Your task to perform on an android device: turn off location Image 0: 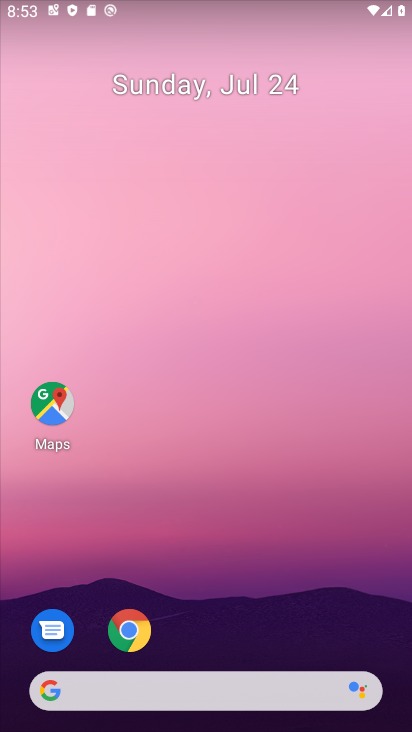
Step 0: drag from (229, 619) to (227, 115)
Your task to perform on an android device: turn off location Image 1: 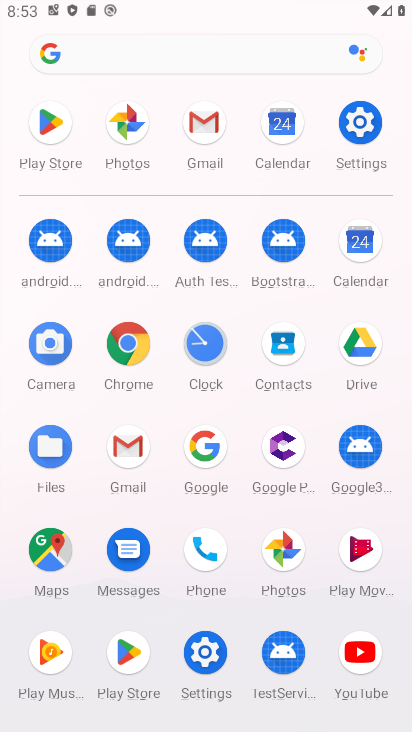
Step 1: click (383, 112)
Your task to perform on an android device: turn off location Image 2: 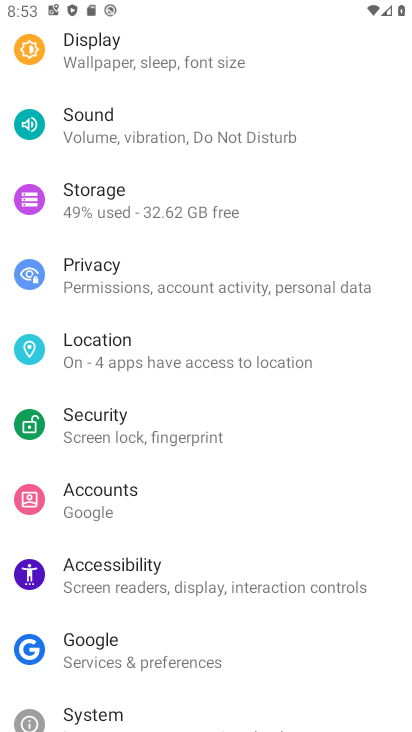
Step 2: click (166, 355)
Your task to perform on an android device: turn off location Image 3: 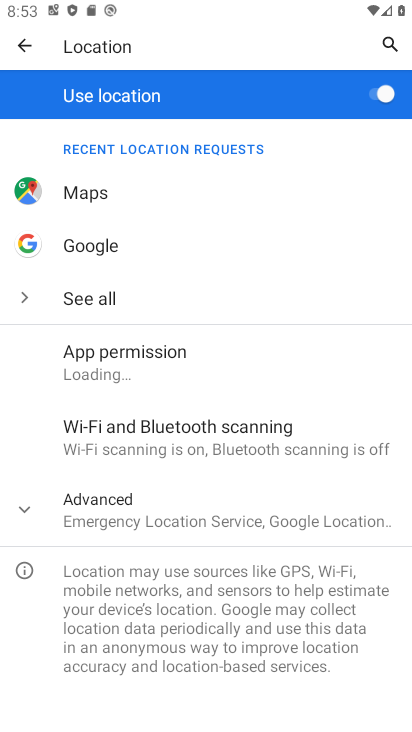
Step 3: click (377, 97)
Your task to perform on an android device: turn off location Image 4: 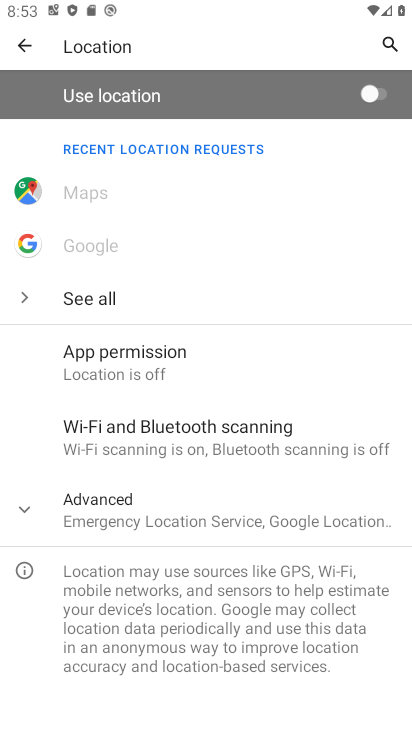
Step 4: task complete